Your task to perform on an android device: Go to Maps Image 0: 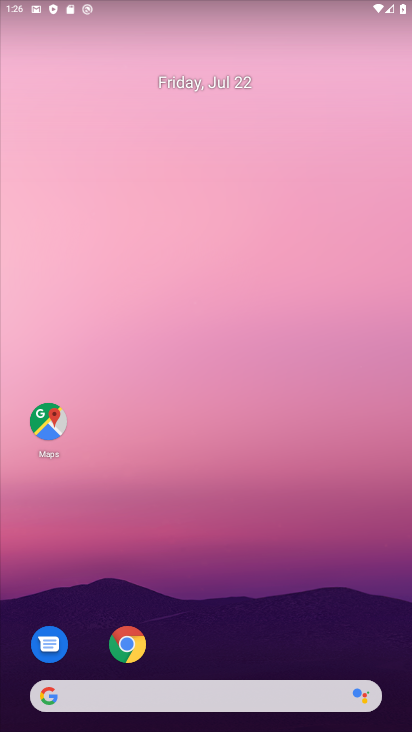
Step 0: press home button
Your task to perform on an android device: Go to Maps Image 1: 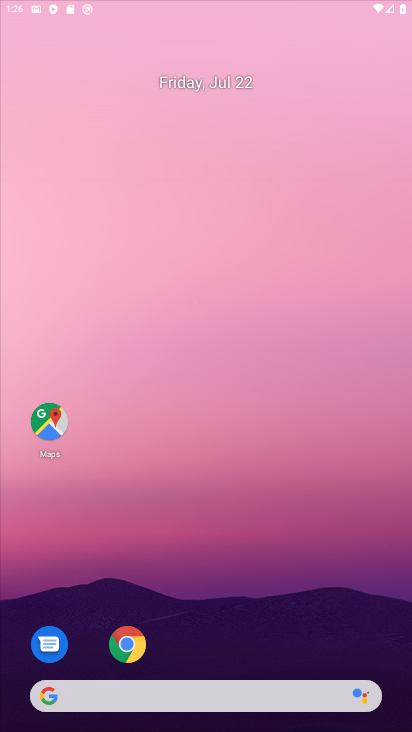
Step 1: drag from (183, 658) to (217, 70)
Your task to perform on an android device: Go to Maps Image 2: 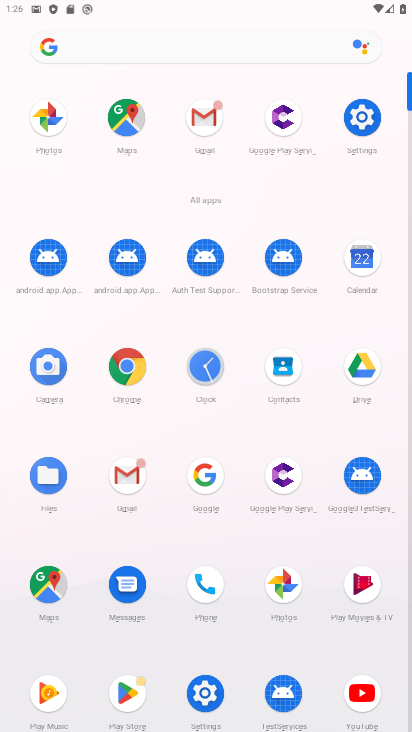
Step 2: click (46, 592)
Your task to perform on an android device: Go to Maps Image 3: 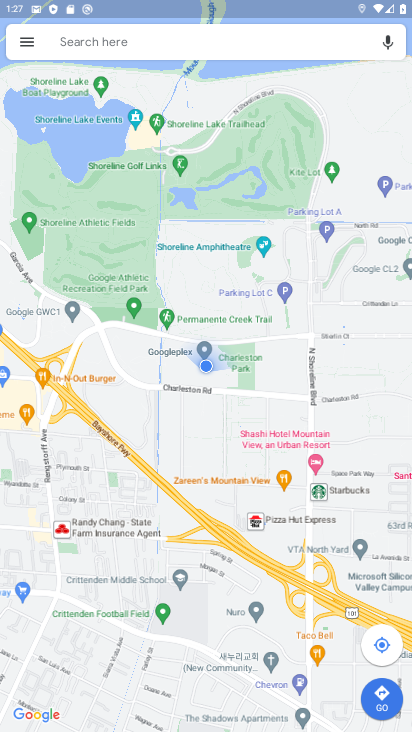
Step 3: task complete